Your task to perform on an android device: visit the assistant section in the google photos Image 0: 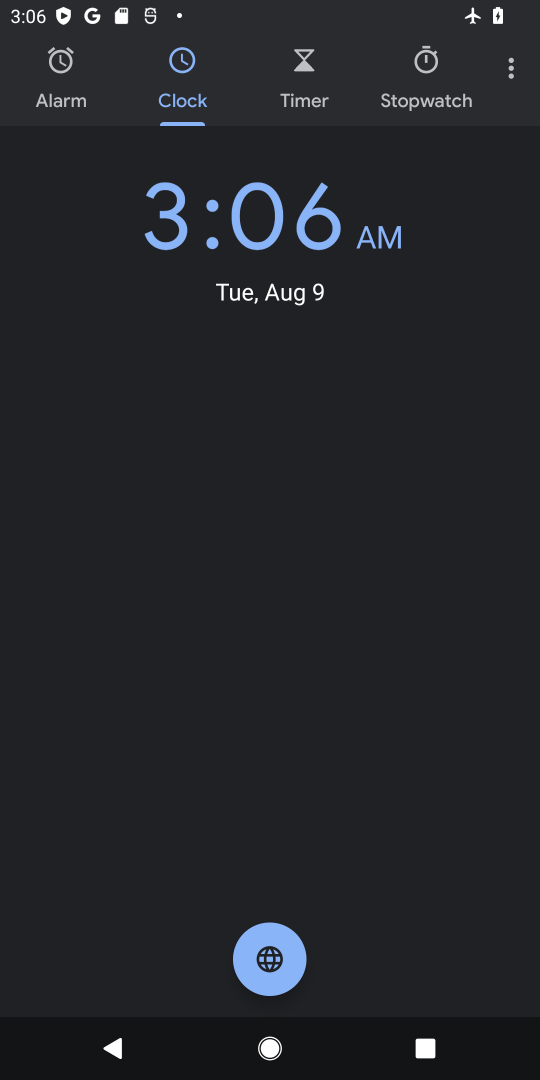
Step 0: press home button
Your task to perform on an android device: visit the assistant section in the google photos Image 1: 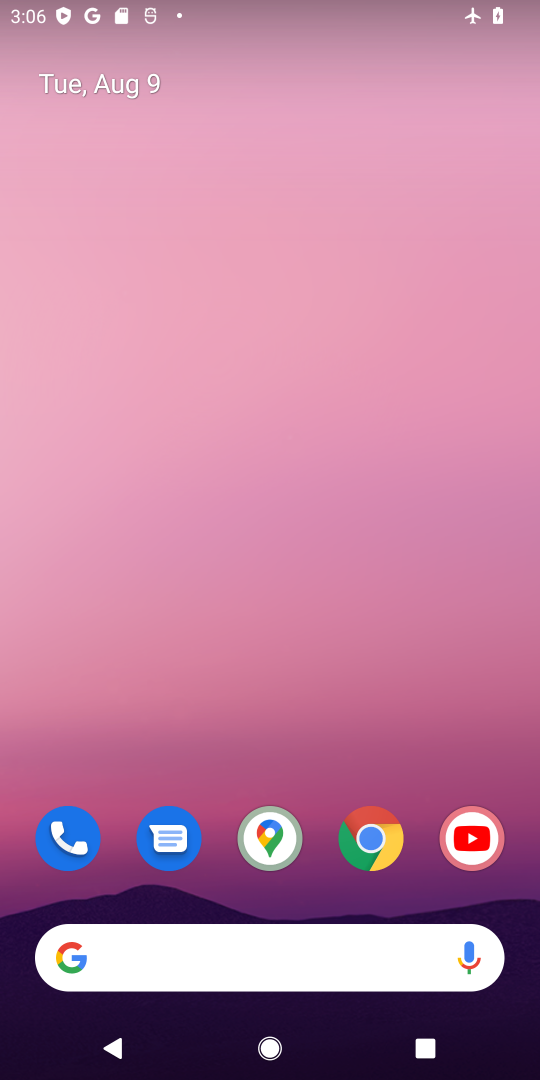
Step 1: drag from (288, 773) to (296, 1)
Your task to perform on an android device: visit the assistant section in the google photos Image 2: 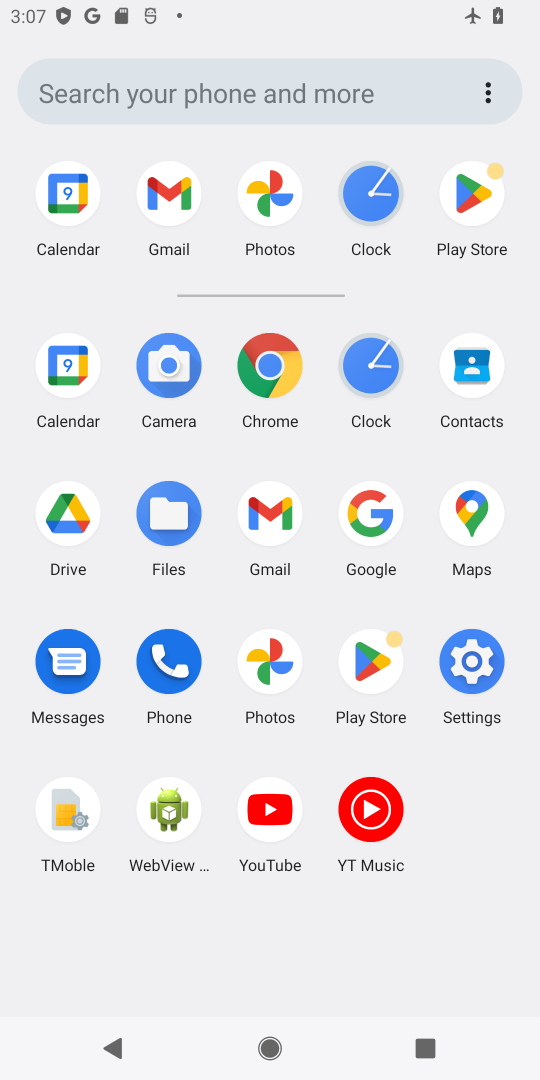
Step 2: click (282, 653)
Your task to perform on an android device: visit the assistant section in the google photos Image 3: 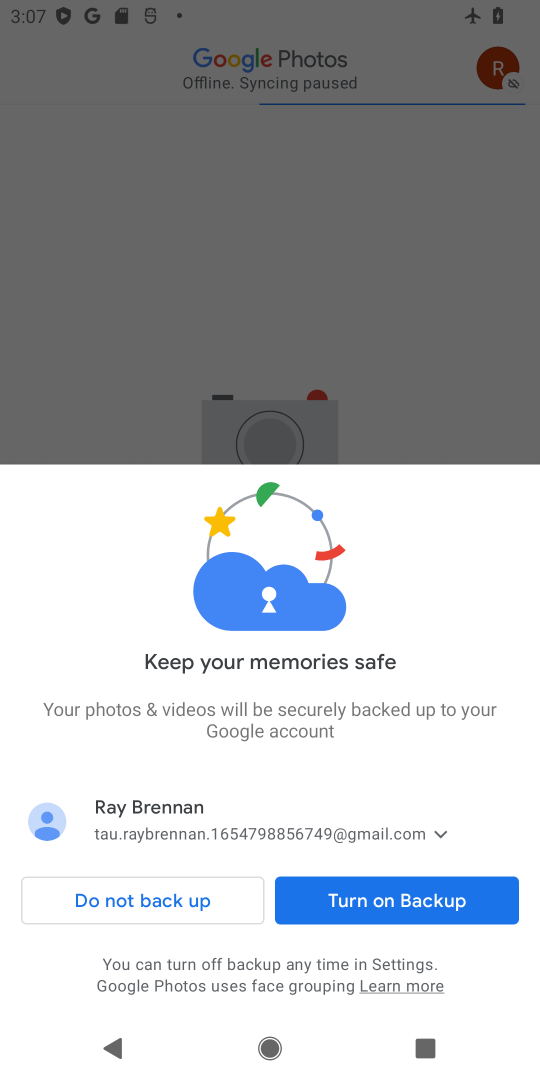
Step 3: click (428, 906)
Your task to perform on an android device: visit the assistant section in the google photos Image 4: 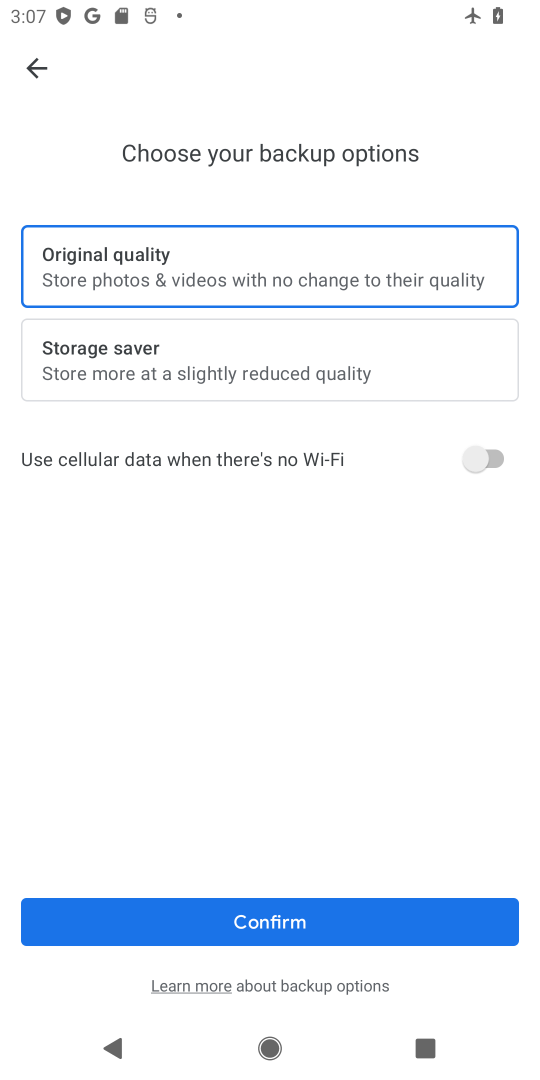
Step 4: click (385, 919)
Your task to perform on an android device: visit the assistant section in the google photos Image 5: 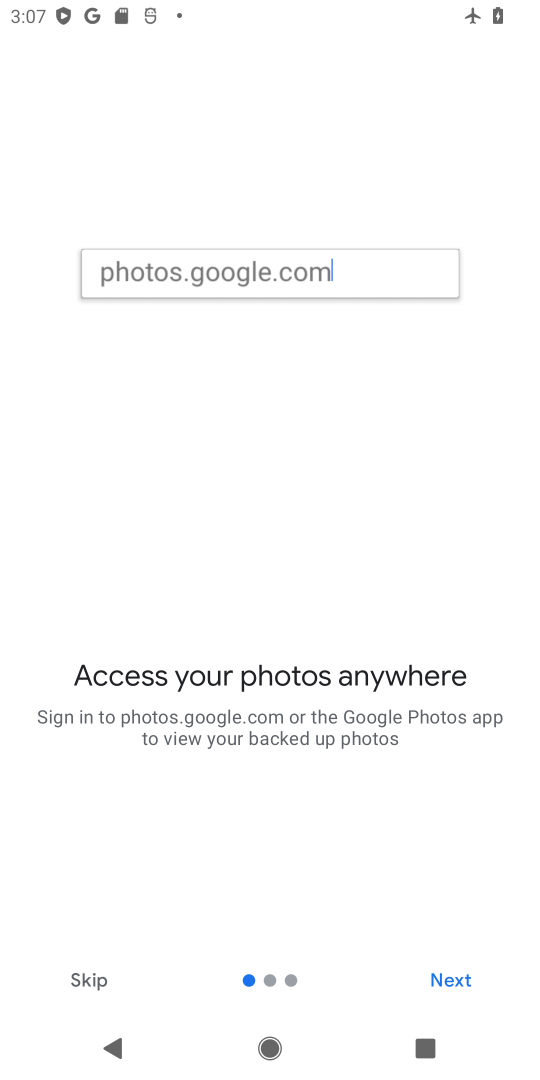
Step 5: click (454, 974)
Your task to perform on an android device: visit the assistant section in the google photos Image 6: 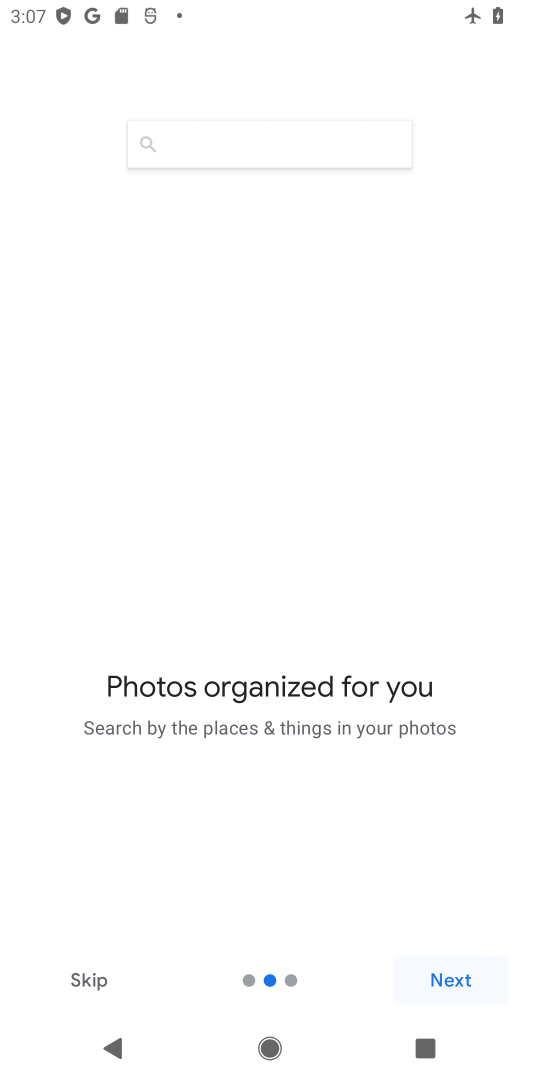
Step 6: click (454, 974)
Your task to perform on an android device: visit the assistant section in the google photos Image 7: 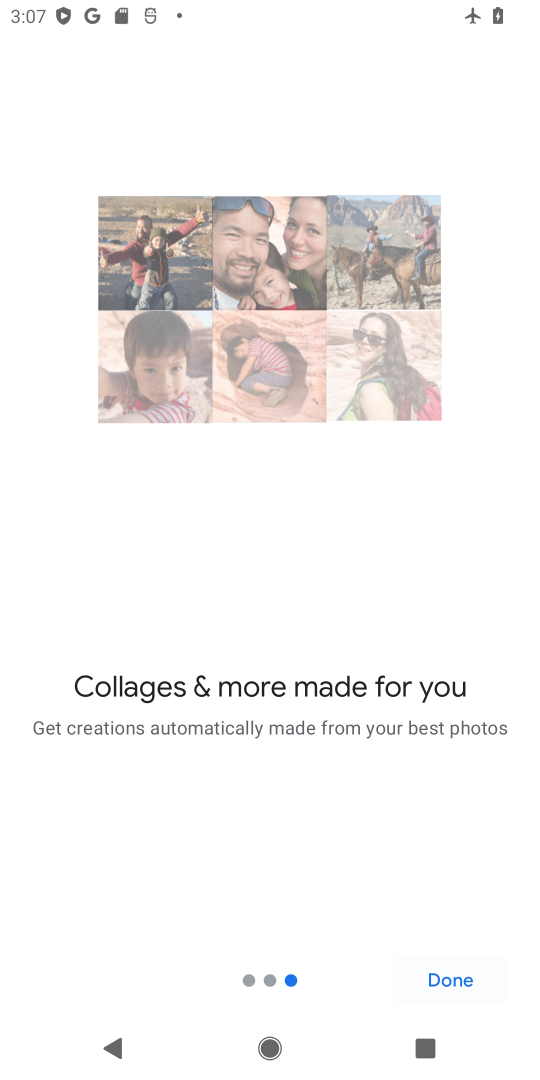
Step 7: click (454, 974)
Your task to perform on an android device: visit the assistant section in the google photos Image 8: 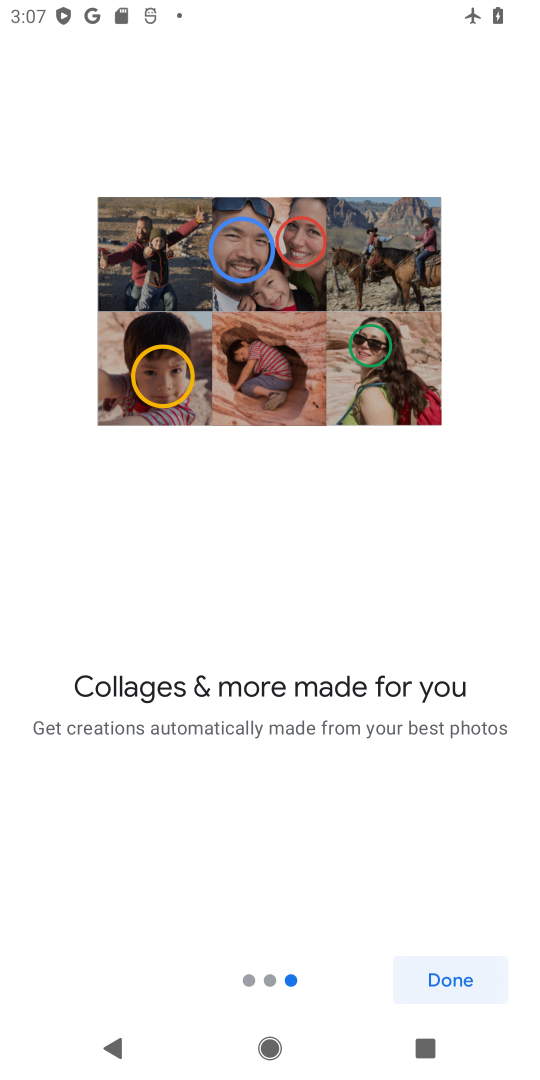
Step 8: click (454, 974)
Your task to perform on an android device: visit the assistant section in the google photos Image 9: 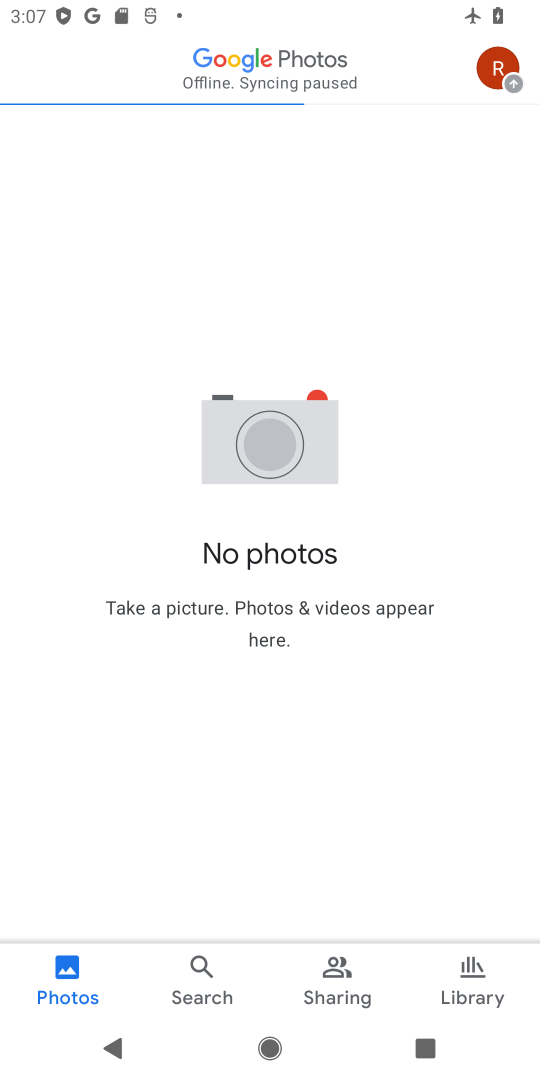
Step 9: click (455, 957)
Your task to perform on an android device: visit the assistant section in the google photos Image 10: 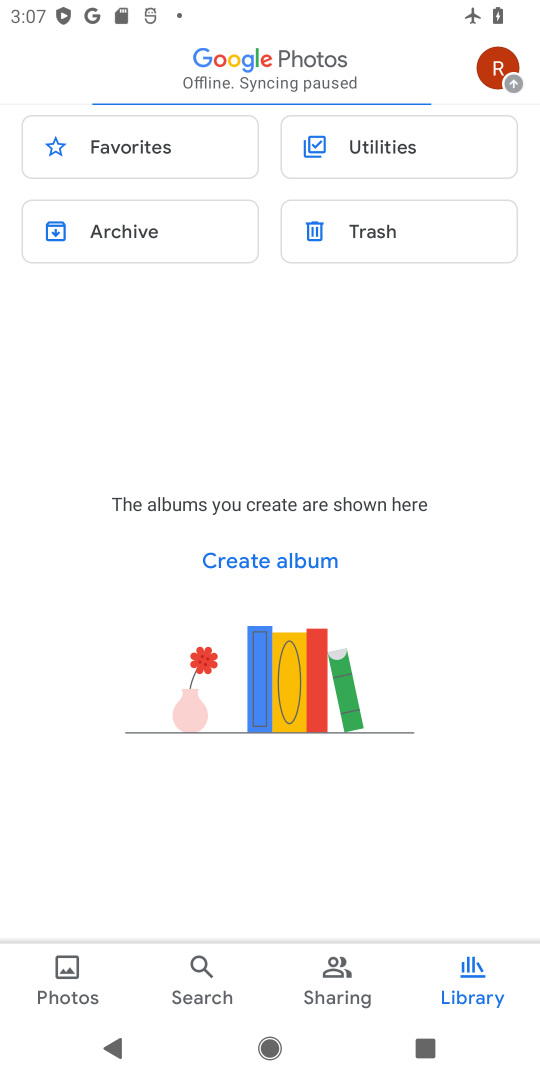
Step 10: task complete